Your task to perform on an android device: Open the calendar app, open the side menu, and click the "Day" option Image 0: 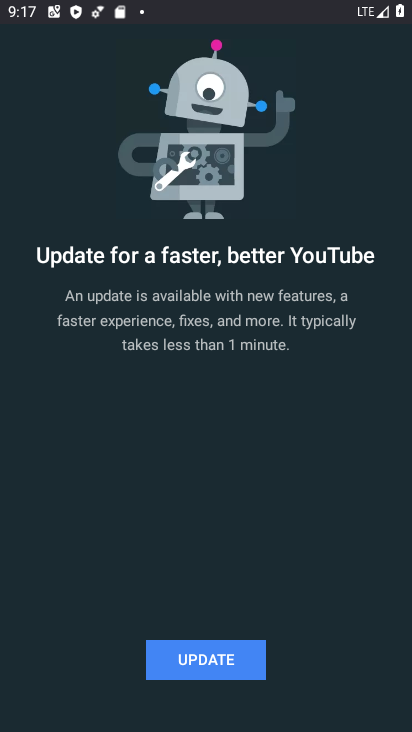
Step 0: press home button
Your task to perform on an android device: Open the calendar app, open the side menu, and click the "Day" option Image 1: 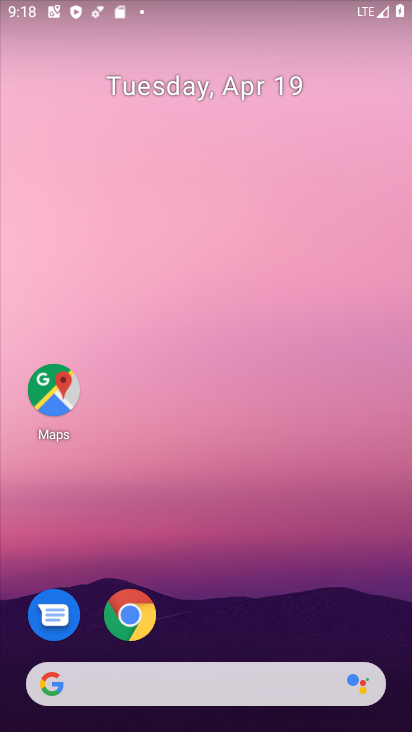
Step 1: click (154, 82)
Your task to perform on an android device: Open the calendar app, open the side menu, and click the "Day" option Image 2: 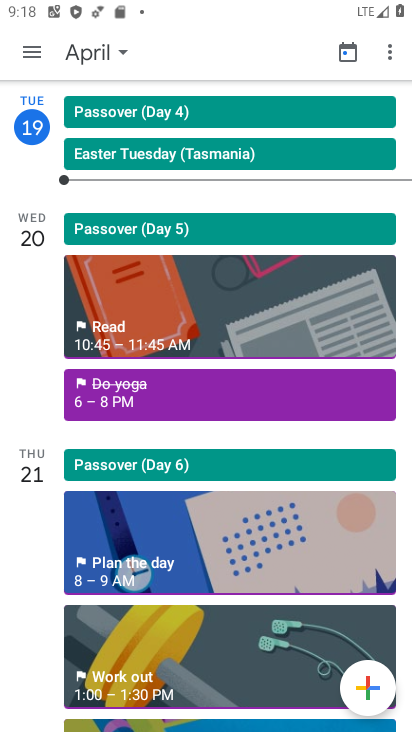
Step 2: click (33, 43)
Your task to perform on an android device: Open the calendar app, open the side menu, and click the "Day" option Image 3: 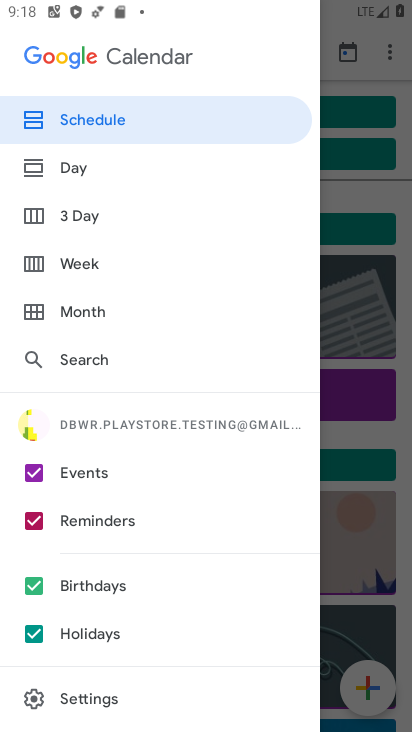
Step 3: click (136, 180)
Your task to perform on an android device: Open the calendar app, open the side menu, and click the "Day" option Image 4: 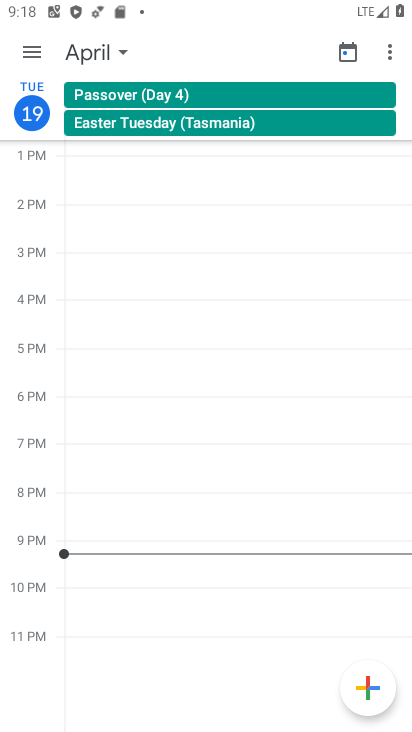
Step 4: task complete